Your task to perform on an android device: check android version Image 0: 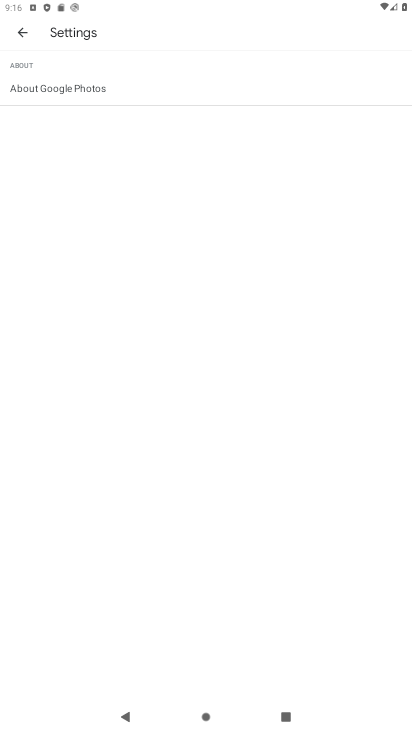
Step 0: press home button
Your task to perform on an android device: check android version Image 1: 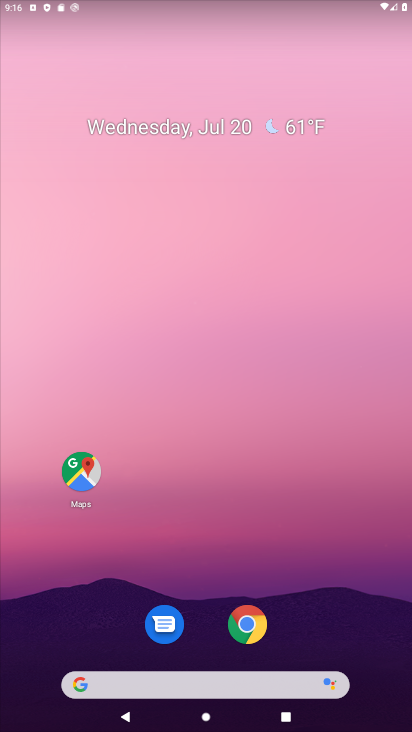
Step 1: drag from (191, 607) to (191, 310)
Your task to perform on an android device: check android version Image 2: 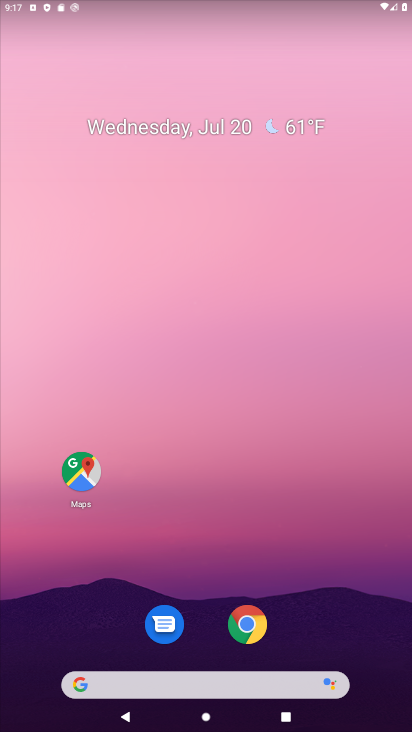
Step 2: drag from (197, 598) to (192, 154)
Your task to perform on an android device: check android version Image 3: 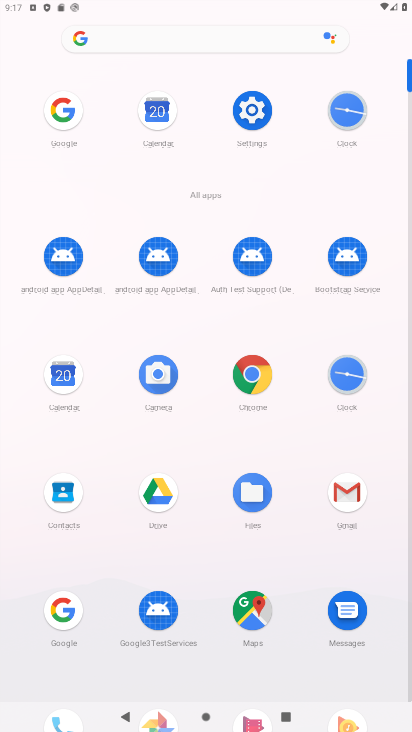
Step 3: click (250, 124)
Your task to perform on an android device: check android version Image 4: 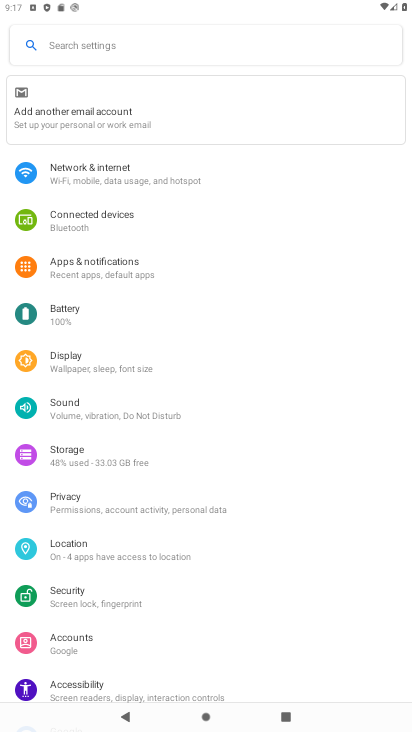
Step 4: drag from (107, 643) to (160, 193)
Your task to perform on an android device: check android version Image 5: 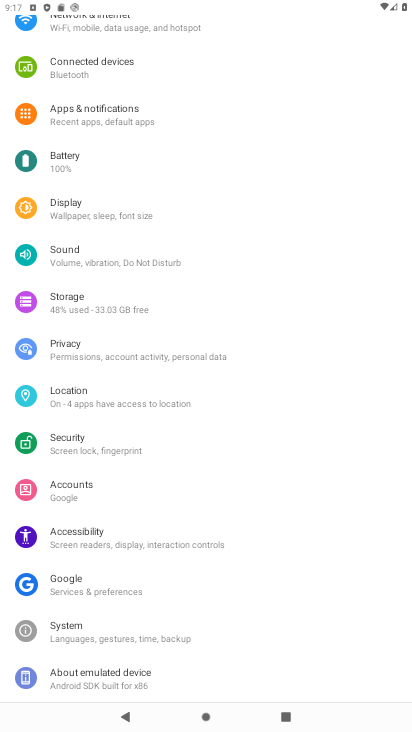
Step 5: click (112, 673)
Your task to perform on an android device: check android version Image 6: 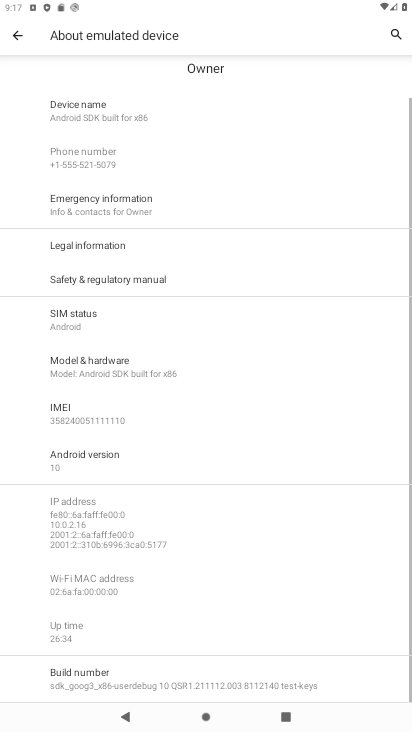
Step 6: drag from (161, 570) to (183, 144)
Your task to perform on an android device: check android version Image 7: 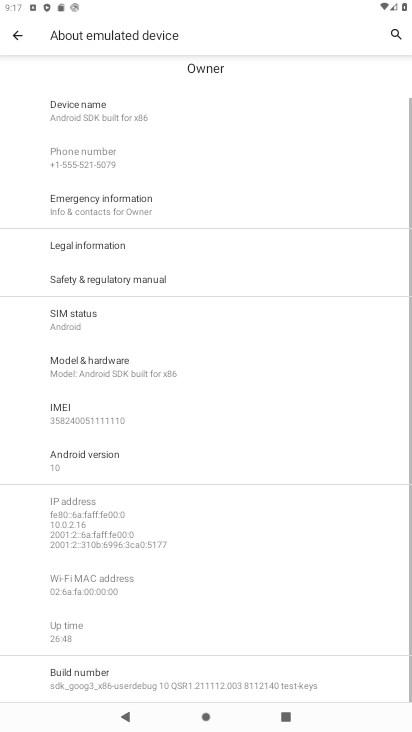
Step 7: click (125, 466)
Your task to perform on an android device: check android version Image 8: 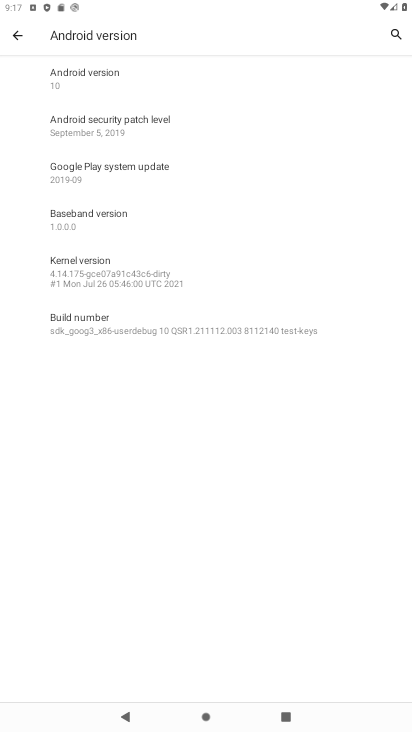
Step 8: click (251, 80)
Your task to perform on an android device: check android version Image 9: 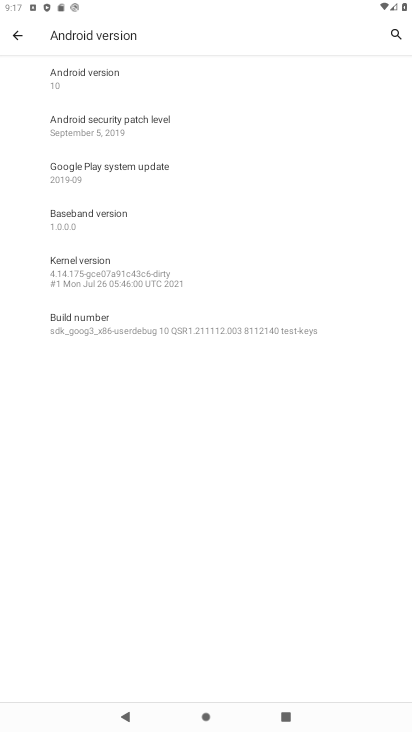
Step 9: task complete